Your task to perform on an android device: clear all cookies in the chrome app Image 0: 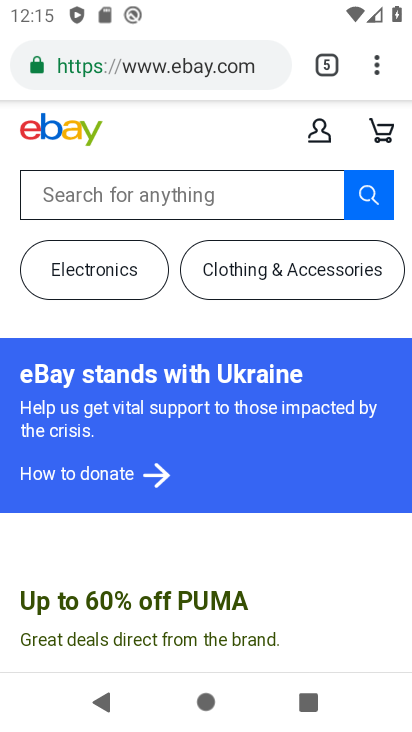
Step 0: press home button
Your task to perform on an android device: clear all cookies in the chrome app Image 1: 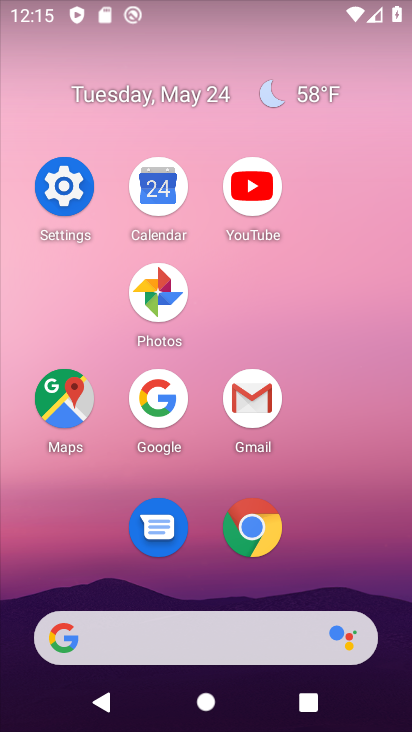
Step 1: click (249, 523)
Your task to perform on an android device: clear all cookies in the chrome app Image 2: 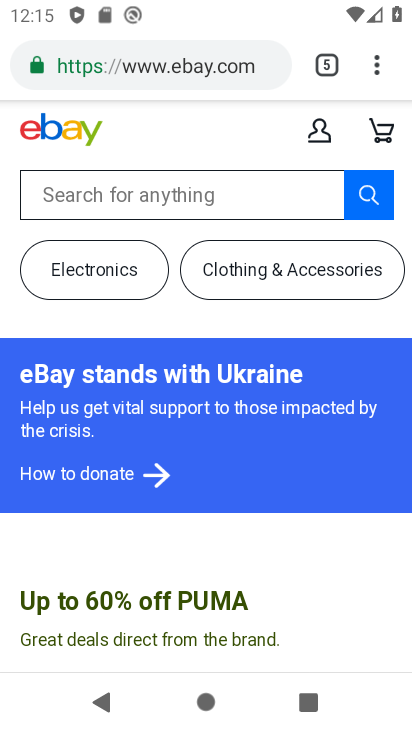
Step 2: click (382, 69)
Your task to perform on an android device: clear all cookies in the chrome app Image 3: 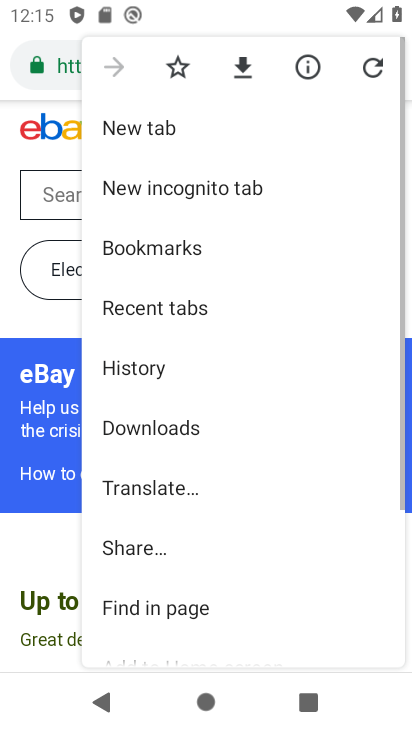
Step 3: drag from (207, 543) to (280, 179)
Your task to perform on an android device: clear all cookies in the chrome app Image 4: 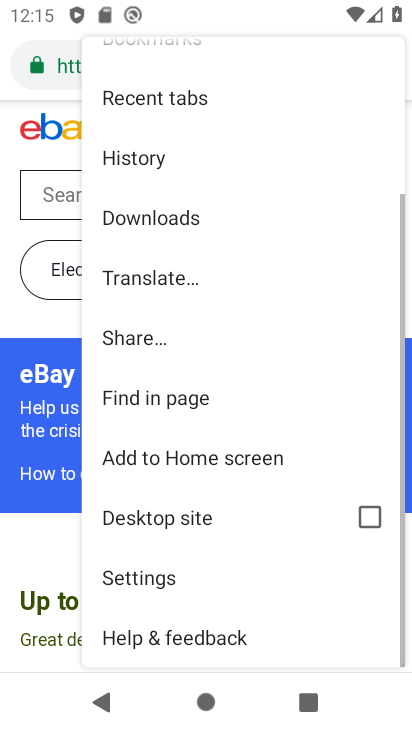
Step 4: click (184, 574)
Your task to perform on an android device: clear all cookies in the chrome app Image 5: 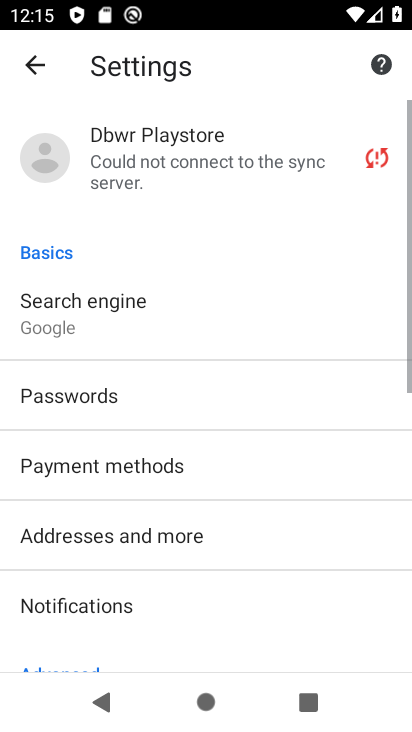
Step 5: drag from (192, 554) to (233, 229)
Your task to perform on an android device: clear all cookies in the chrome app Image 6: 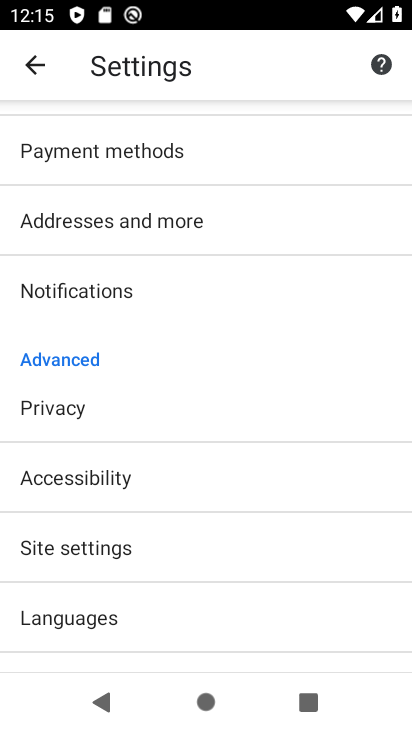
Step 6: click (217, 414)
Your task to perform on an android device: clear all cookies in the chrome app Image 7: 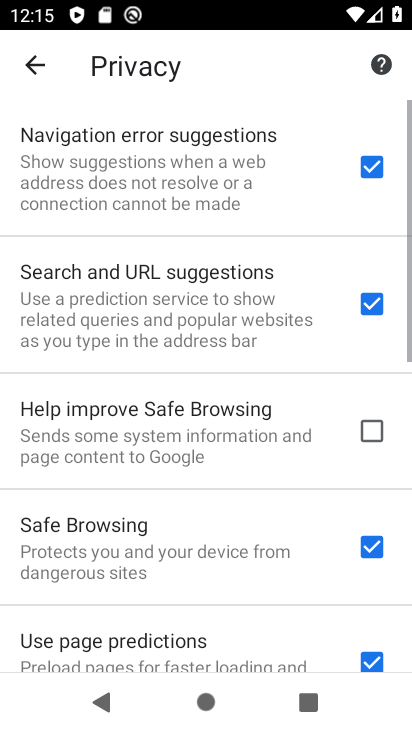
Step 7: drag from (241, 501) to (286, 152)
Your task to perform on an android device: clear all cookies in the chrome app Image 8: 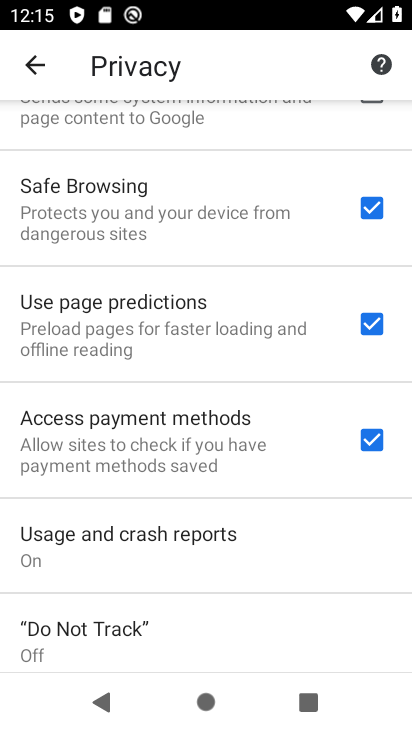
Step 8: drag from (257, 601) to (275, 159)
Your task to perform on an android device: clear all cookies in the chrome app Image 9: 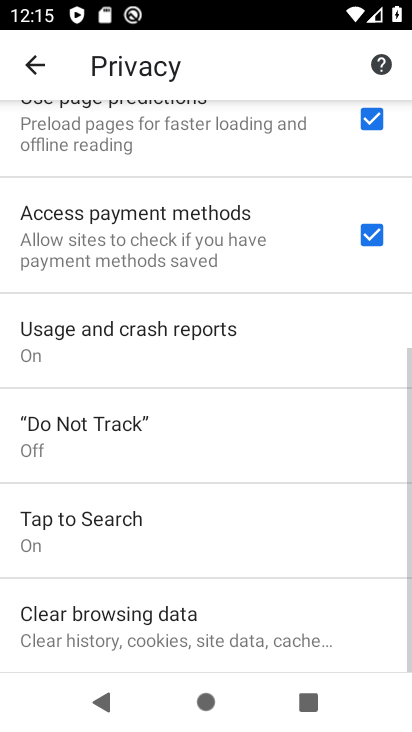
Step 9: click (301, 641)
Your task to perform on an android device: clear all cookies in the chrome app Image 10: 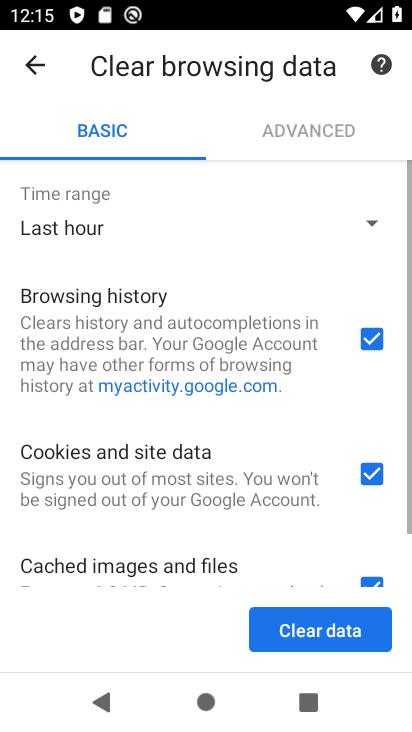
Step 10: click (296, 622)
Your task to perform on an android device: clear all cookies in the chrome app Image 11: 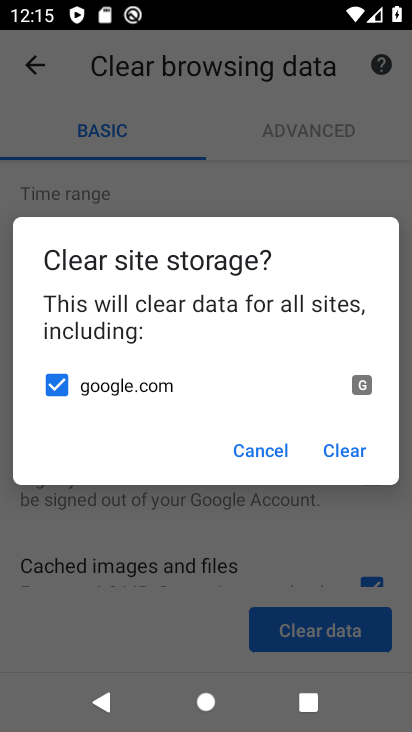
Step 11: click (329, 470)
Your task to perform on an android device: clear all cookies in the chrome app Image 12: 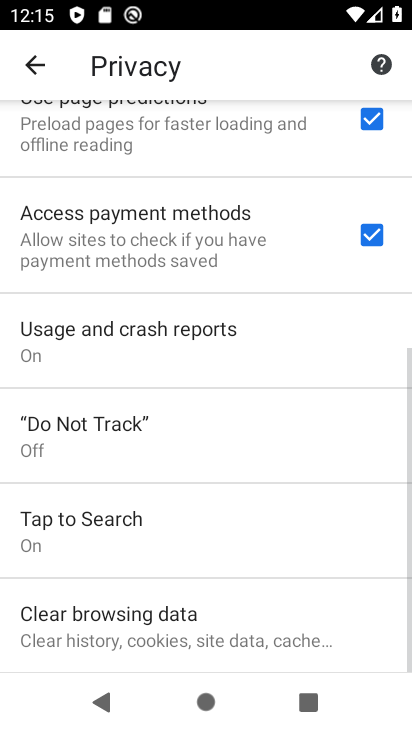
Step 12: task complete